Your task to perform on an android device: turn on sleep mode Image 0: 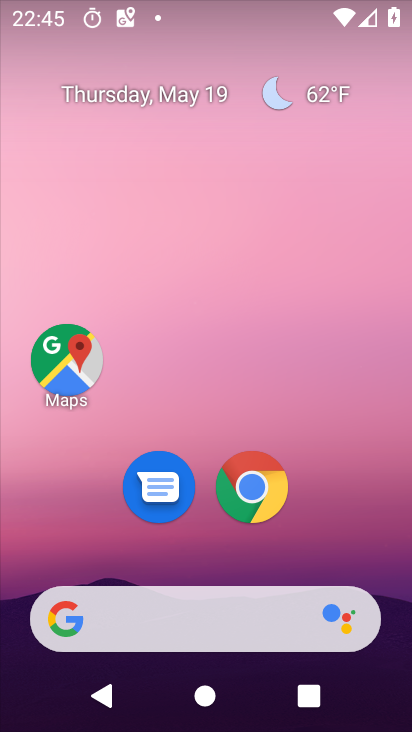
Step 0: drag from (332, 545) to (291, 148)
Your task to perform on an android device: turn on sleep mode Image 1: 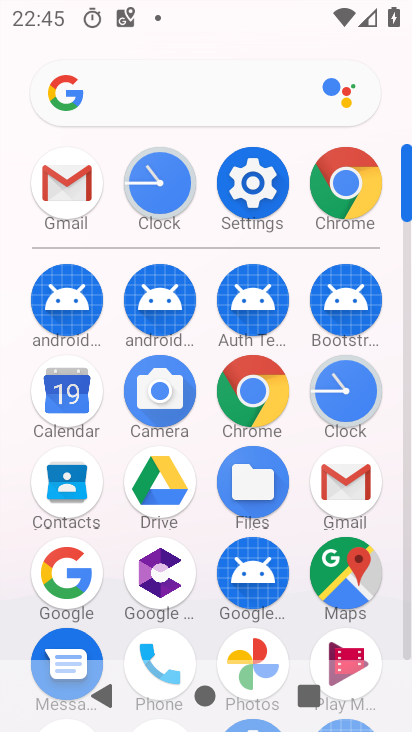
Step 1: click (255, 180)
Your task to perform on an android device: turn on sleep mode Image 2: 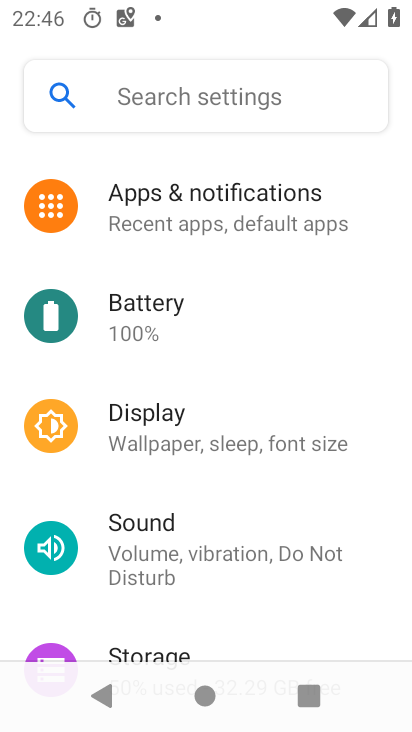
Step 2: click (235, 433)
Your task to perform on an android device: turn on sleep mode Image 3: 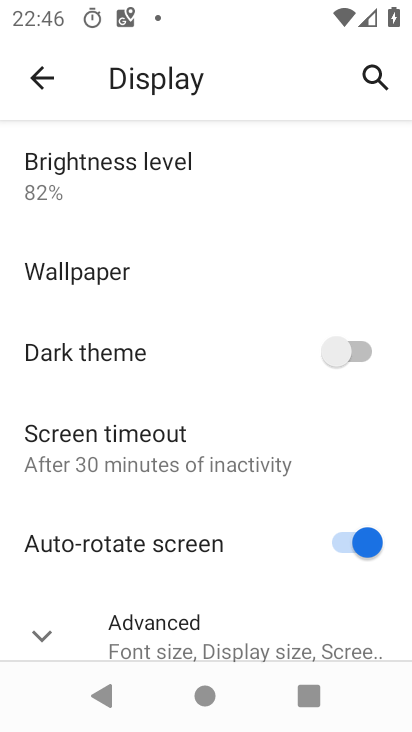
Step 3: drag from (266, 556) to (243, 282)
Your task to perform on an android device: turn on sleep mode Image 4: 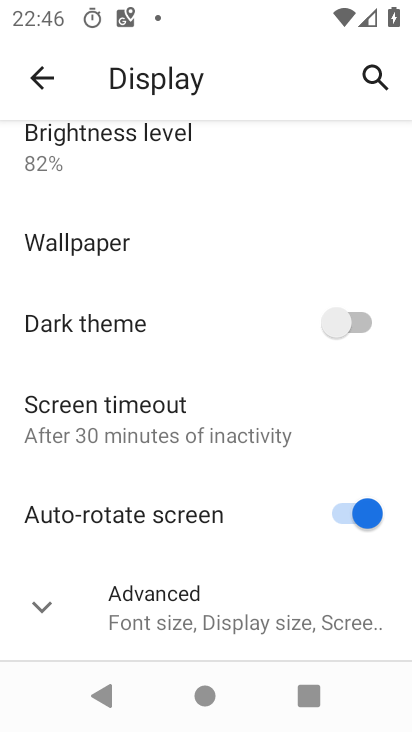
Step 4: click (251, 614)
Your task to perform on an android device: turn on sleep mode Image 5: 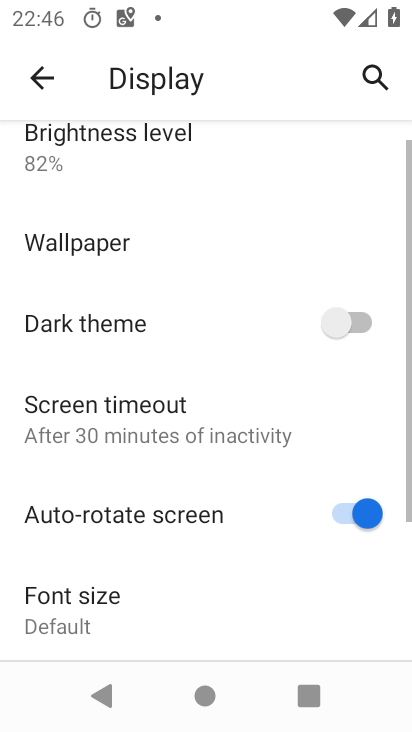
Step 5: task complete